Your task to perform on an android device: Go to Reddit.com Image 0: 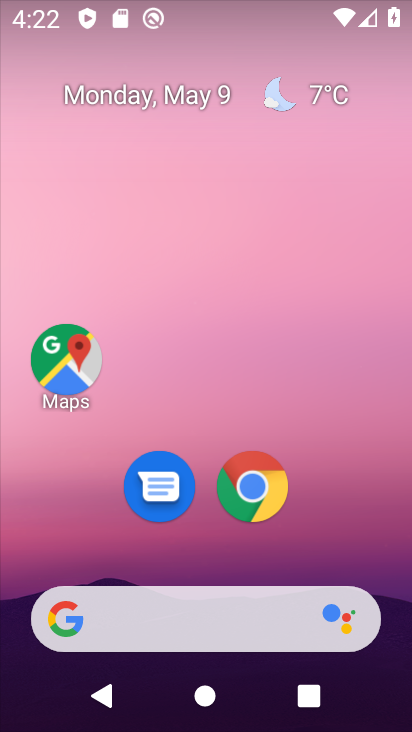
Step 0: click (196, 626)
Your task to perform on an android device: Go to Reddit.com Image 1: 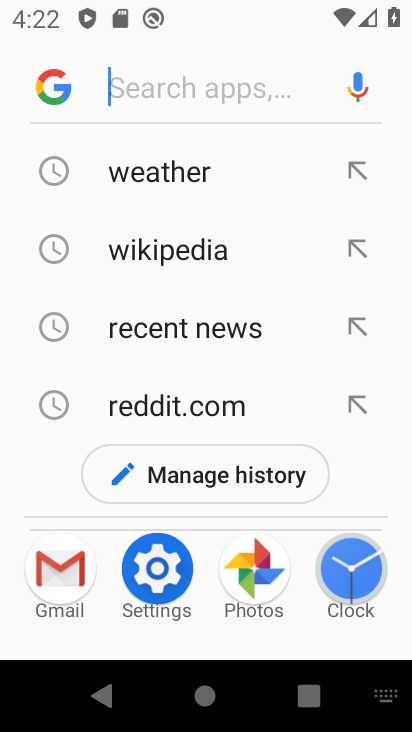
Step 1: type "Reddit"
Your task to perform on an android device: Go to Reddit.com Image 2: 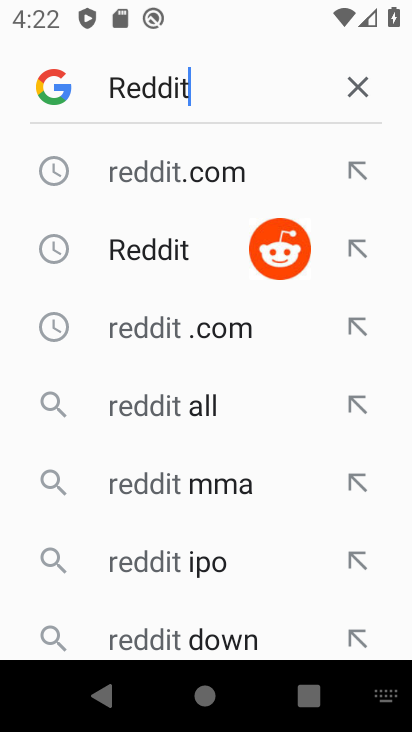
Step 2: click (188, 252)
Your task to perform on an android device: Go to Reddit.com Image 3: 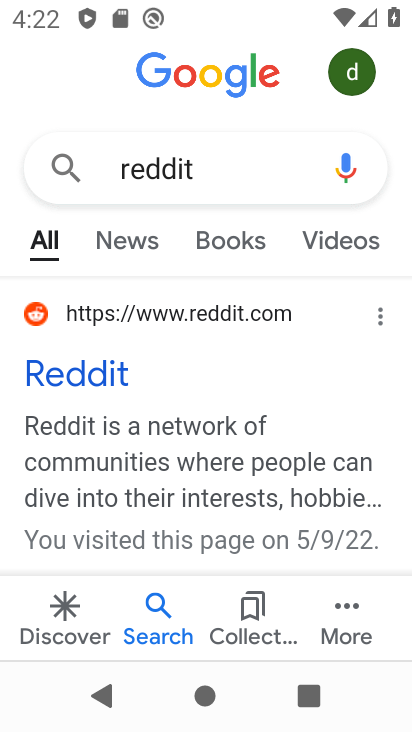
Step 3: click (59, 366)
Your task to perform on an android device: Go to Reddit.com Image 4: 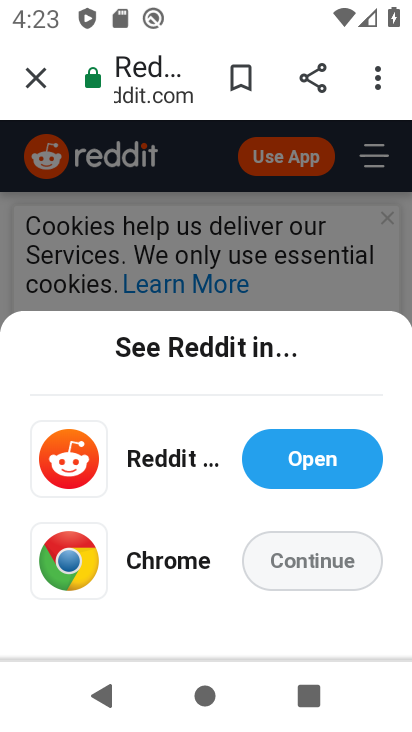
Step 4: click (332, 560)
Your task to perform on an android device: Go to Reddit.com Image 5: 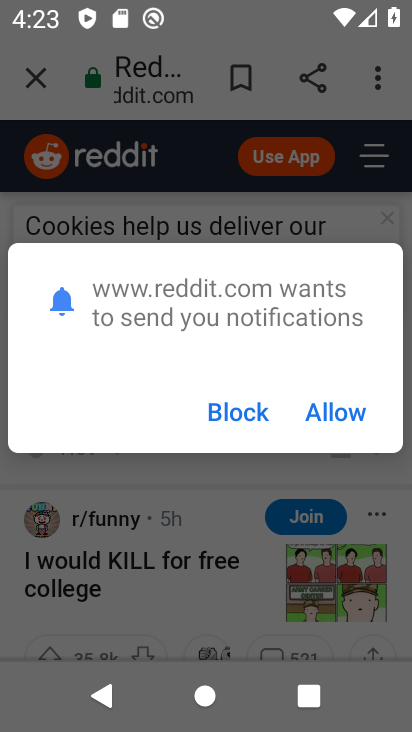
Step 5: click (346, 397)
Your task to perform on an android device: Go to Reddit.com Image 6: 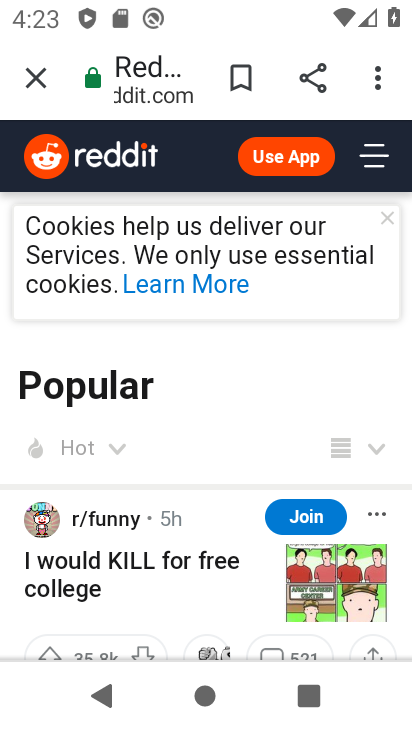
Step 6: task complete